Your task to perform on an android device: clear history in the chrome app Image 0: 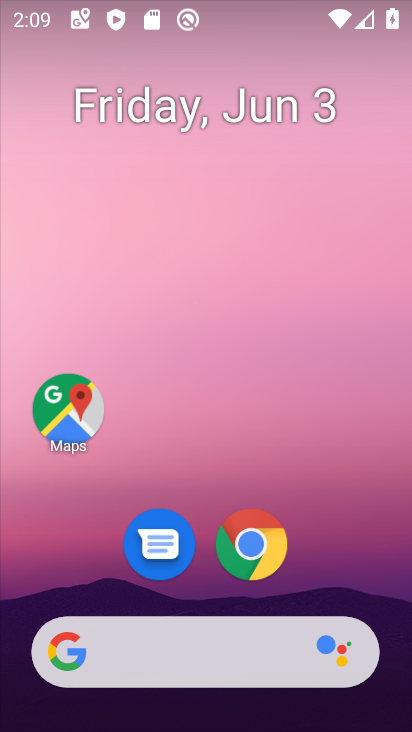
Step 0: drag from (318, 522) to (322, 178)
Your task to perform on an android device: clear history in the chrome app Image 1: 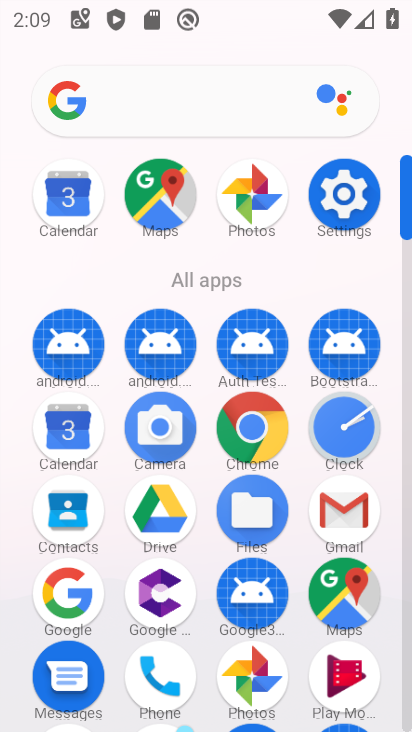
Step 1: click (264, 432)
Your task to perform on an android device: clear history in the chrome app Image 2: 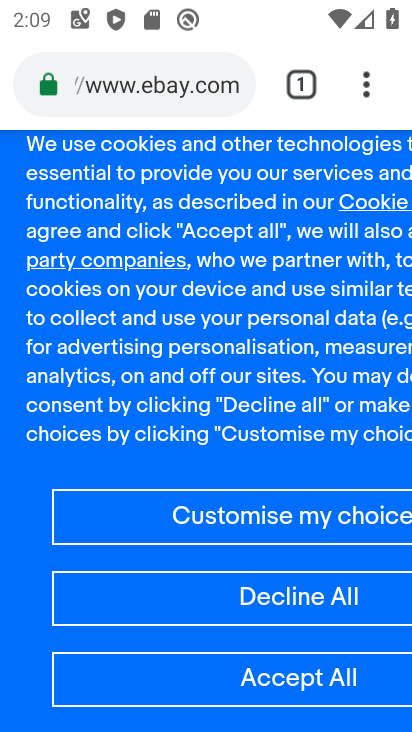
Step 2: drag from (369, 72) to (147, 477)
Your task to perform on an android device: clear history in the chrome app Image 3: 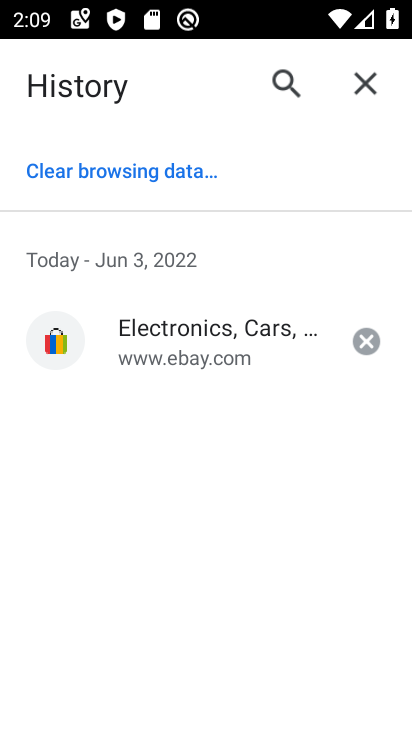
Step 3: click (196, 172)
Your task to perform on an android device: clear history in the chrome app Image 4: 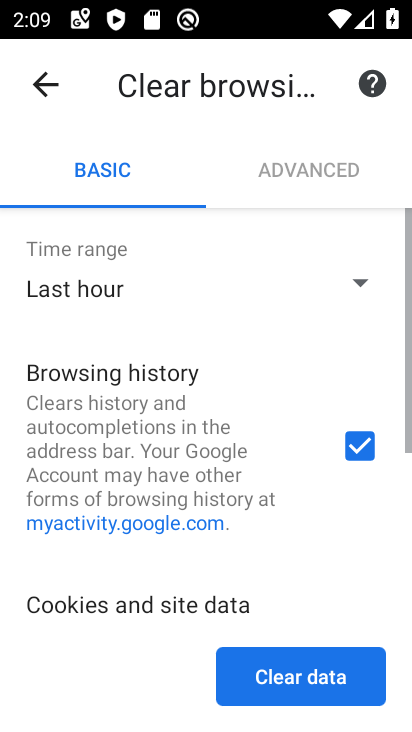
Step 4: click (248, 685)
Your task to perform on an android device: clear history in the chrome app Image 5: 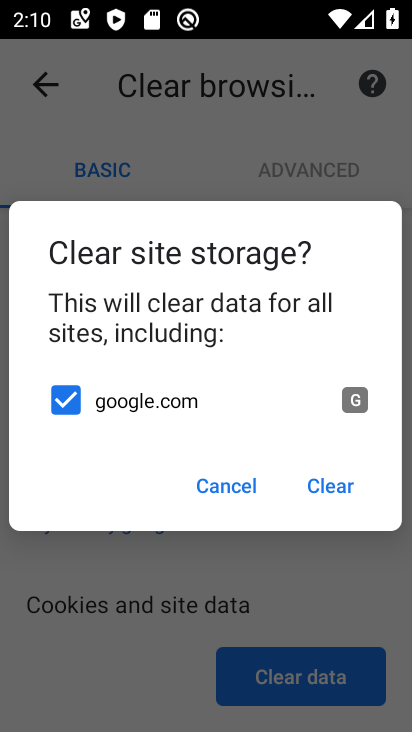
Step 5: click (326, 492)
Your task to perform on an android device: clear history in the chrome app Image 6: 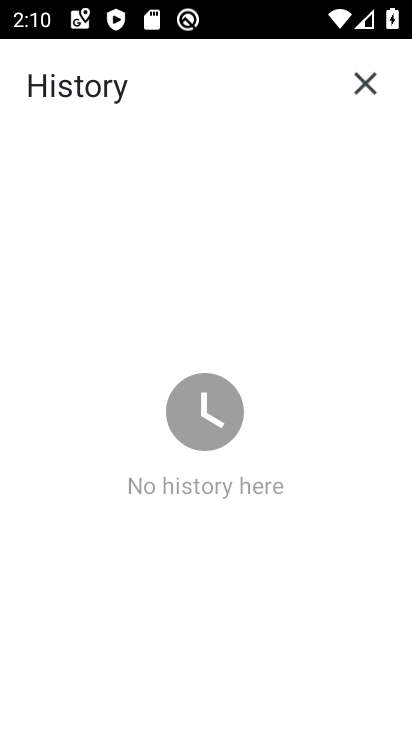
Step 6: task complete